Your task to perform on an android device: Open calendar and show me the first week of next month Image 0: 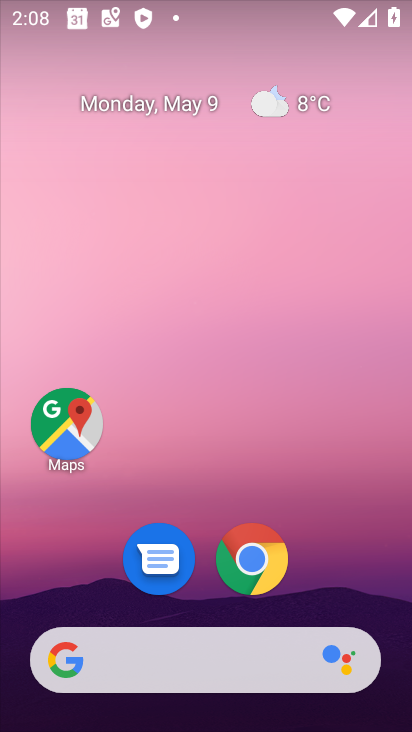
Step 0: drag from (269, 501) to (196, 6)
Your task to perform on an android device: Open calendar and show me the first week of next month Image 1: 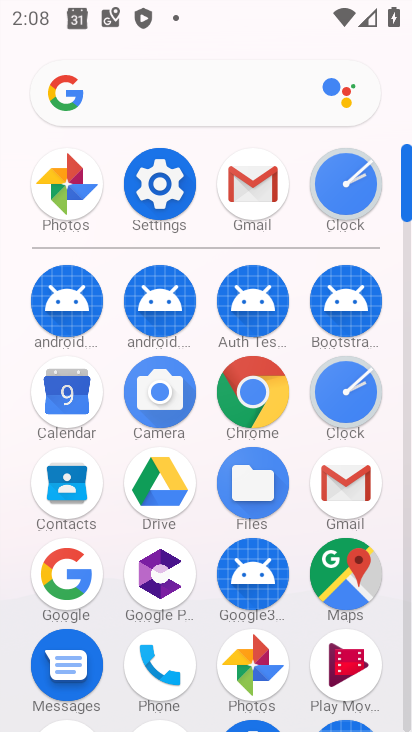
Step 1: click (65, 389)
Your task to perform on an android device: Open calendar and show me the first week of next month Image 2: 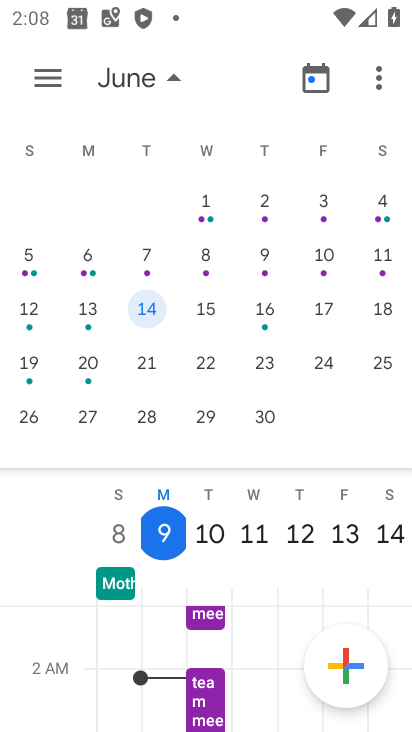
Step 2: click (205, 201)
Your task to perform on an android device: Open calendar and show me the first week of next month Image 3: 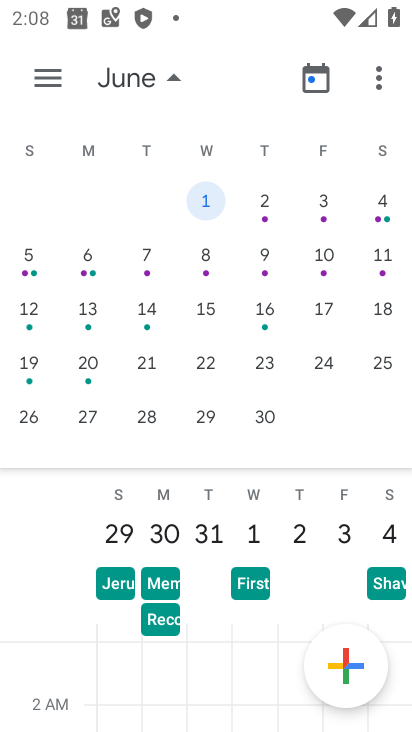
Step 3: task complete